Your task to perform on an android device: Open battery settings Image 0: 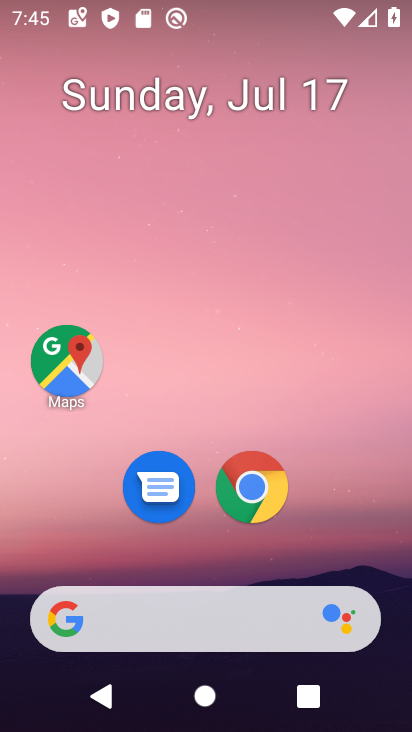
Step 0: drag from (131, 542) to (235, 4)
Your task to perform on an android device: Open battery settings Image 1: 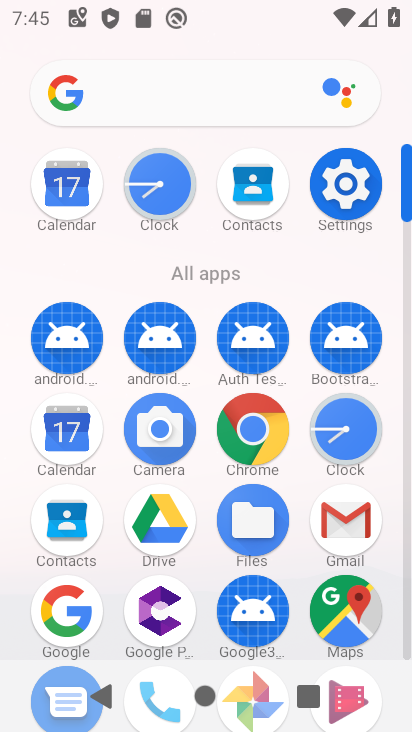
Step 1: click (355, 179)
Your task to perform on an android device: Open battery settings Image 2: 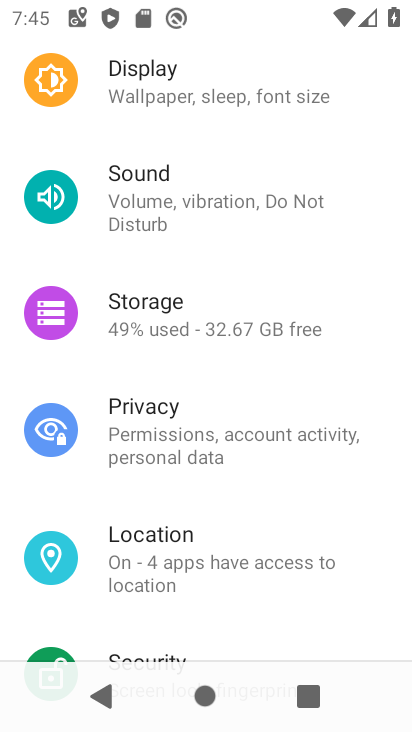
Step 2: drag from (213, 177) to (202, 614)
Your task to perform on an android device: Open battery settings Image 3: 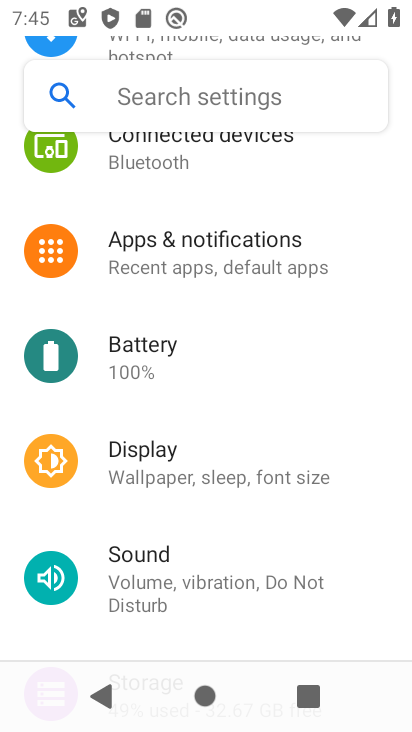
Step 3: click (161, 359)
Your task to perform on an android device: Open battery settings Image 4: 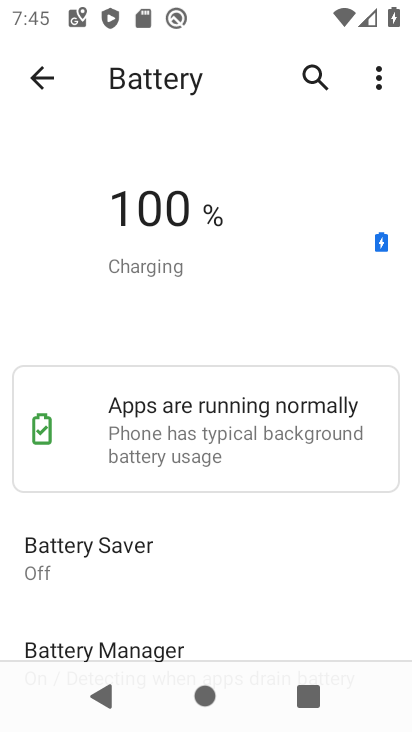
Step 4: task complete